Your task to perform on an android device: Check the news Image 0: 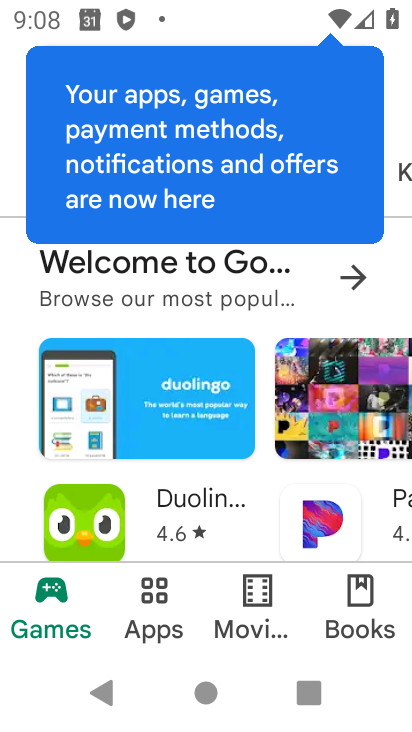
Step 0: press home button
Your task to perform on an android device: Check the news Image 1: 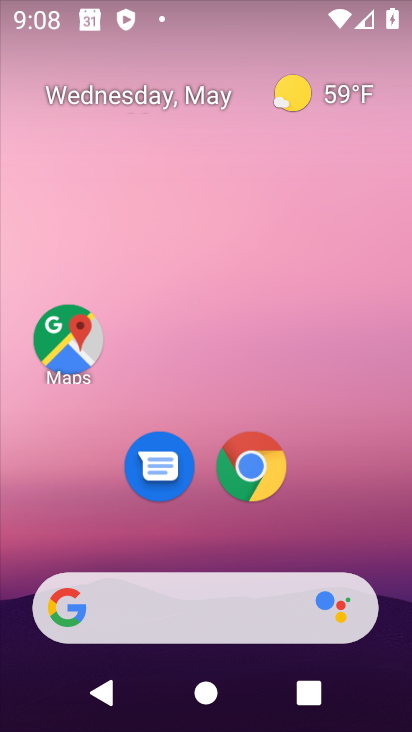
Step 1: drag from (294, 542) to (325, 165)
Your task to perform on an android device: Check the news Image 2: 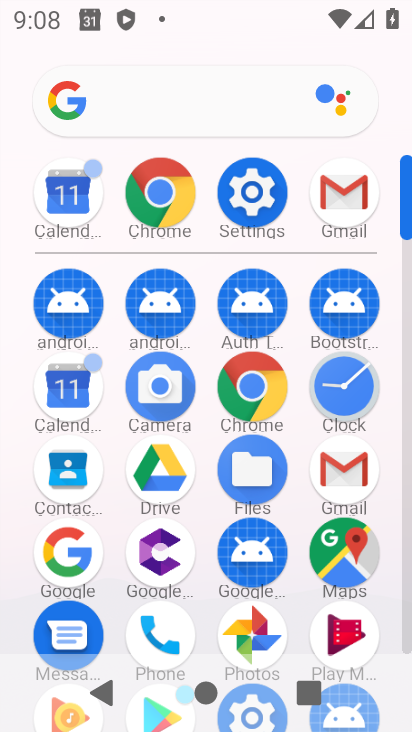
Step 2: click (137, 195)
Your task to perform on an android device: Check the news Image 3: 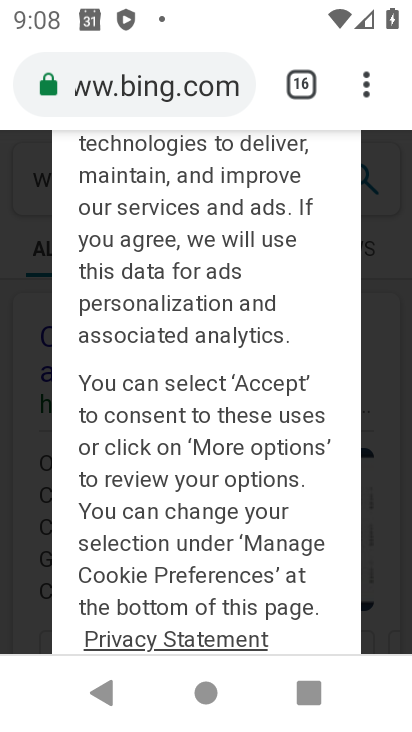
Step 3: click (351, 82)
Your task to perform on an android device: Check the news Image 4: 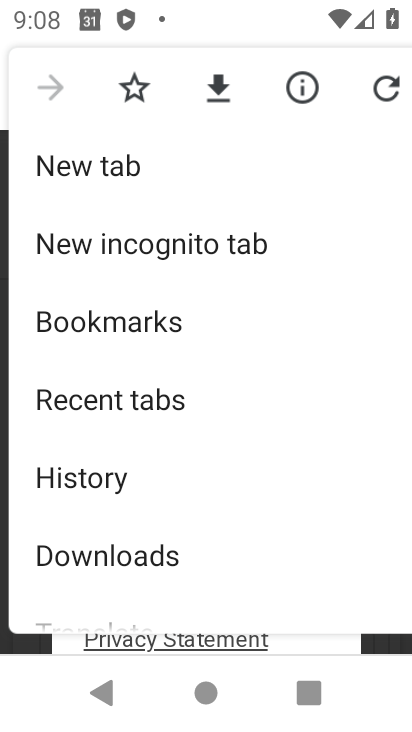
Step 4: click (161, 162)
Your task to perform on an android device: Check the news Image 5: 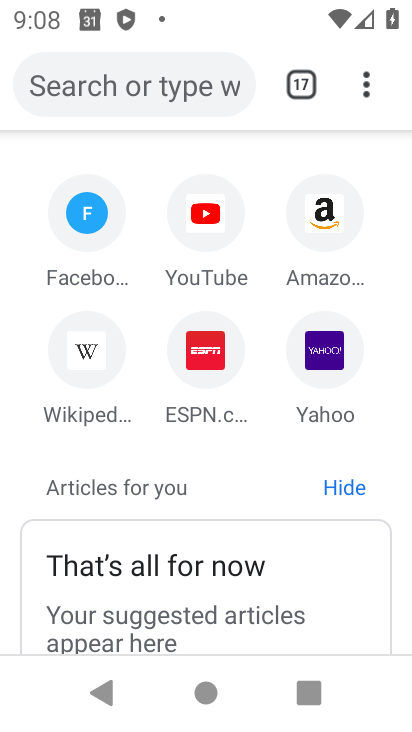
Step 5: click (123, 75)
Your task to perform on an android device: Check the news Image 6: 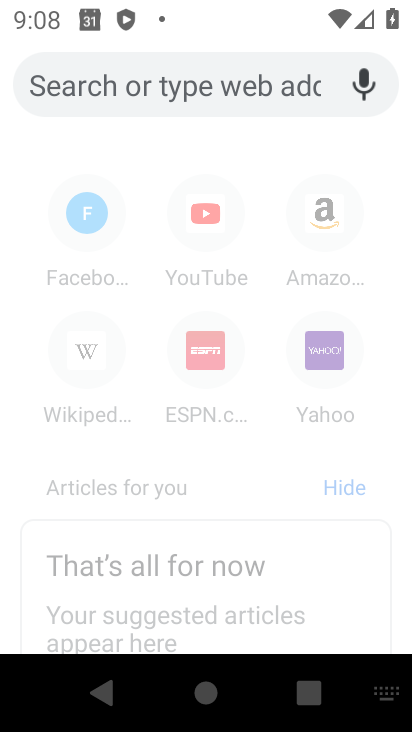
Step 6: type "Check the news"
Your task to perform on an android device: Check the news Image 7: 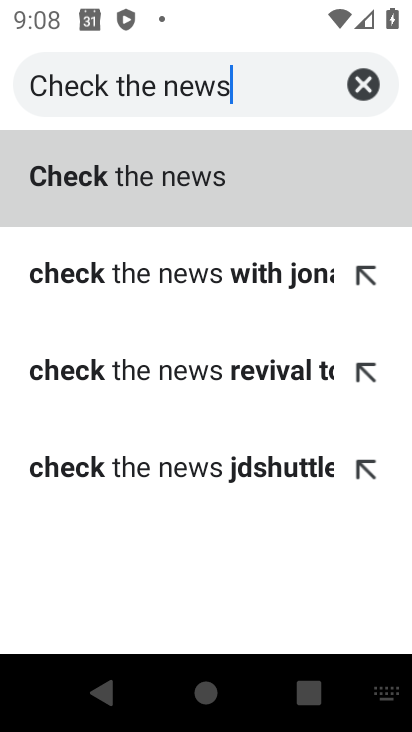
Step 7: click (259, 180)
Your task to perform on an android device: Check the news Image 8: 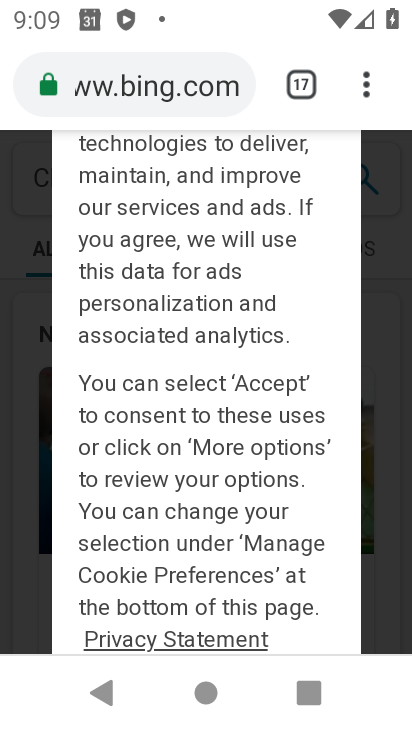
Step 8: task complete